Your task to perform on an android device: Clear the shopping cart on walmart.com. Search for usb-a on walmart.com, select the first entry, add it to the cart, then select checkout. Image 0: 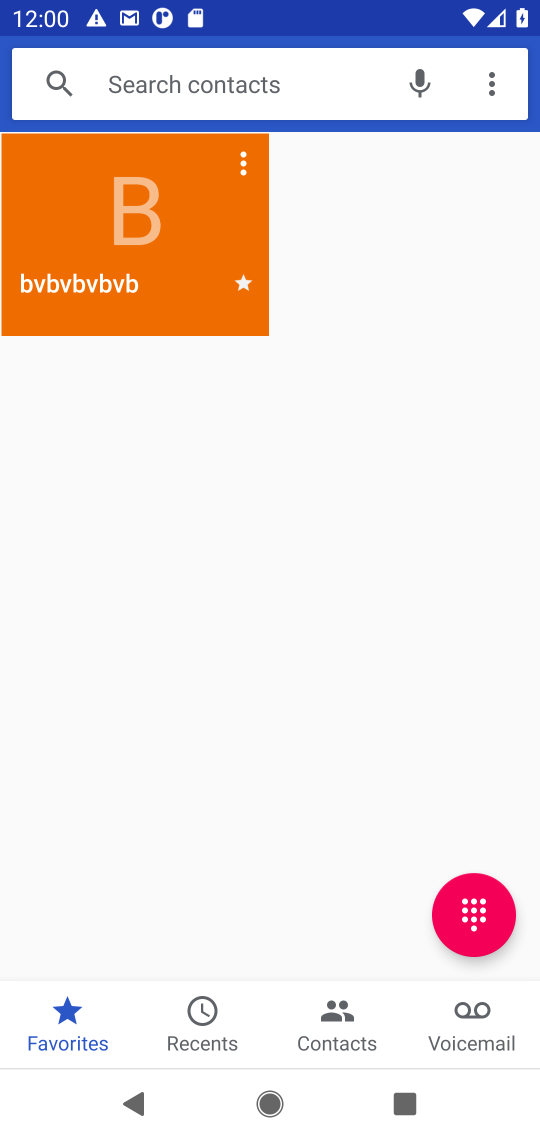
Step 0: press home button
Your task to perform on an android device: Clear the shopping cart on walmart.com. Search for usb-a on walmart.com, select the first entry, add it to the cart, then select checkout. Image 1: 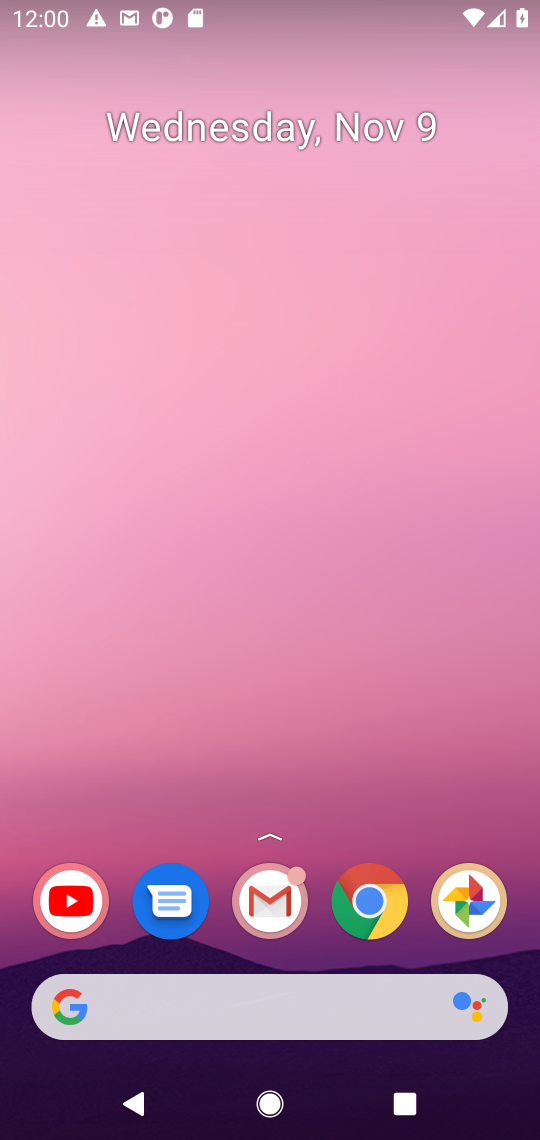
Step 1: click (390, 897)
Your task to perform on an android device: Clear the shopping cart on walmart.com. Search for usb-a on walmart.com, select the first entry, add it to the cart, then select checkout. Image 2: 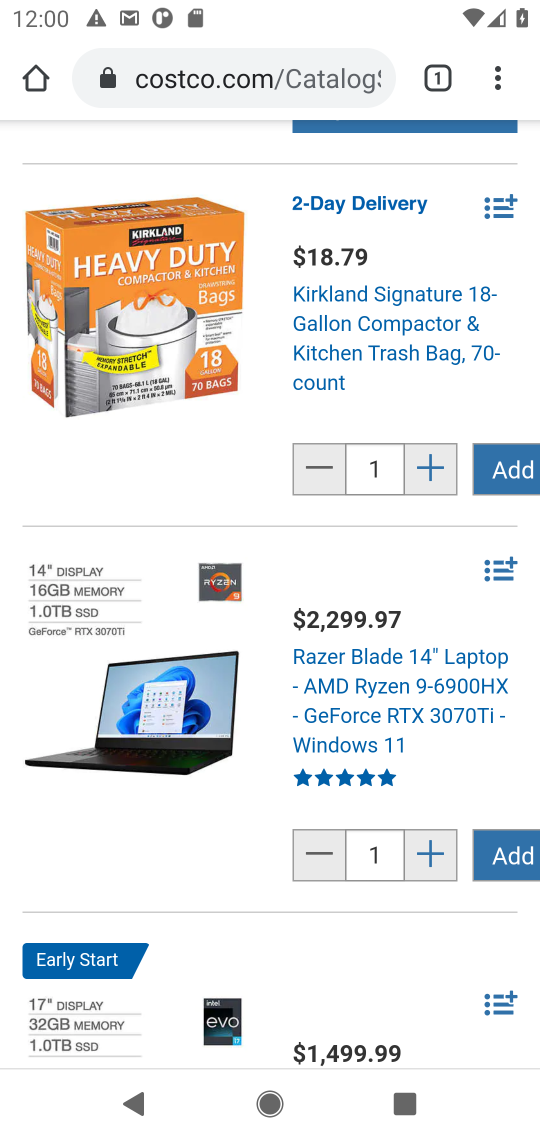
Step 2: click (289, 72)
Your task to perform on an android device: Clear the shopping cart on walmart.com. Search for usb-a on walmart.com, select the first entry, add it to the cart, then select checkout. Image 3: 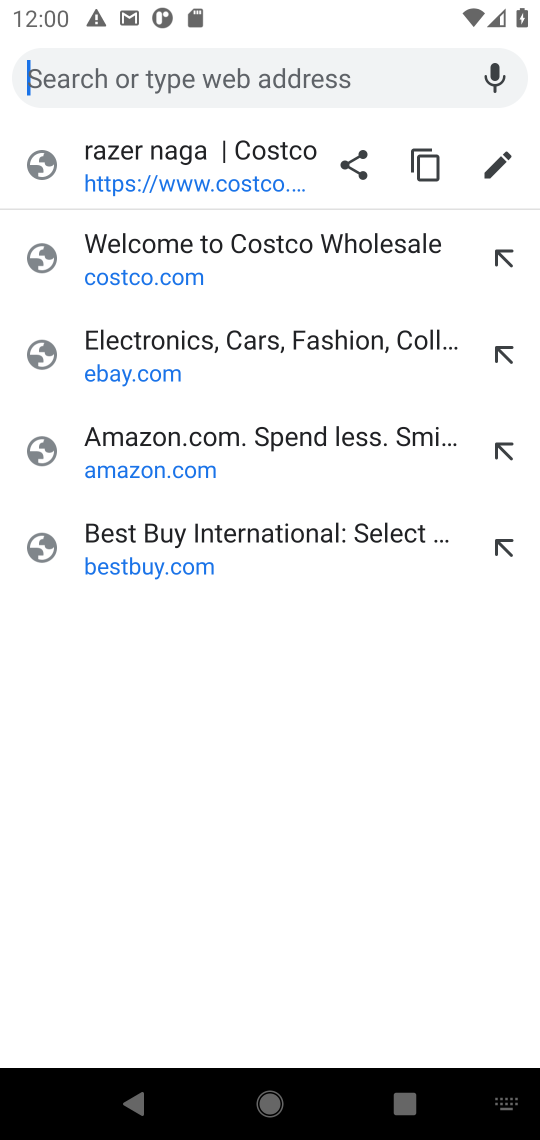
Step 3: type "walmart.com"
Your task to perform on an android device: Clear the shopping cart on walmart.com. Search for usb-a on walmart.com, select the first entry, add it to the cart, then select checkout. Image 4: 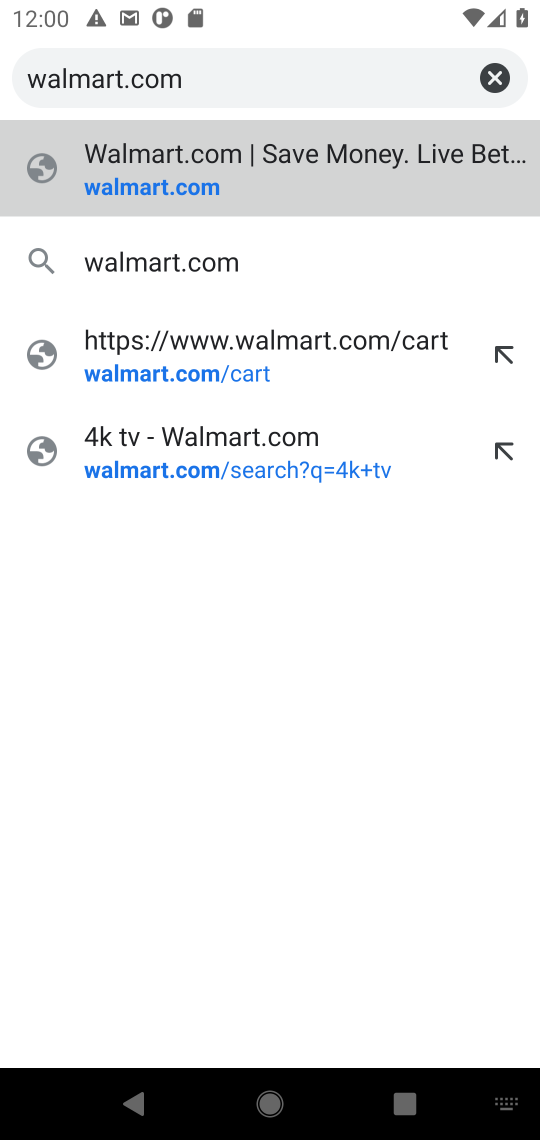
Step 4: press enter
Your task to perform on an android device: Clear the shopping cart on walmart.com. Search for usb-a on walmart.com, select the first entry, add it to the cart, then select checkout. Image 5: 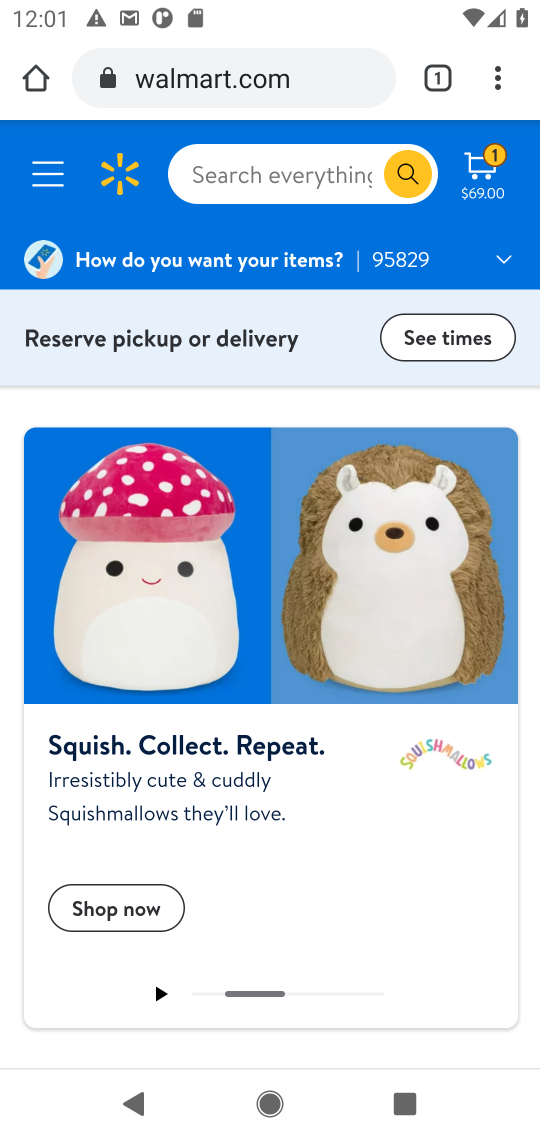
Step 5: click (479, 173)
Your task to perform on an android device: Clear the shopping cart on walmart.com. Search for usb-a on walmart.com, select the first entry, add it to the cart, then select checkout. Image 6: 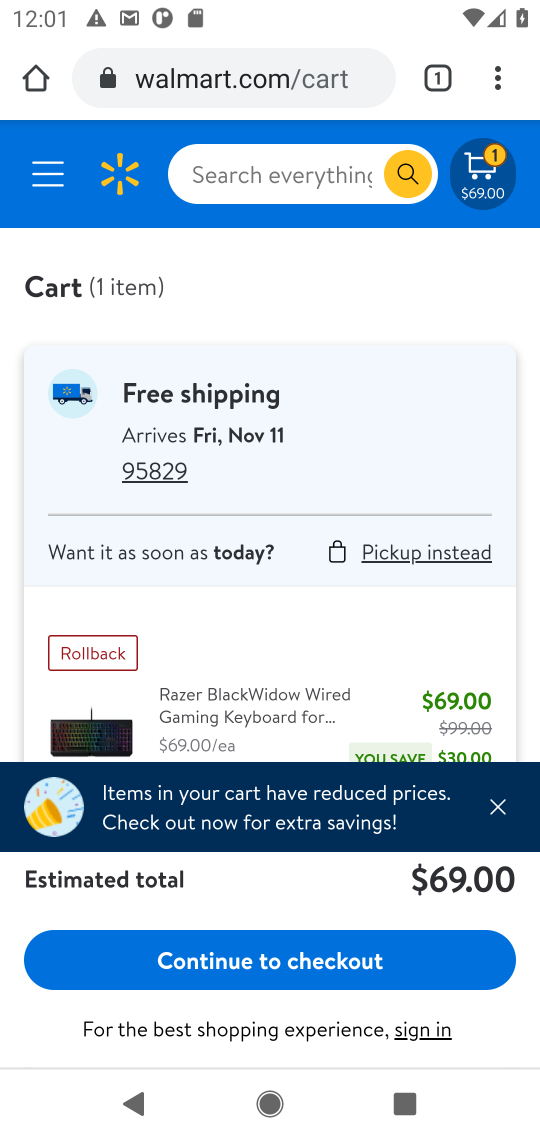
Step 6: drag from (408, 576) to (460, 266)
Your task to perform on an android device: Clear the shopping cart on walmart.com. Search for usb-a on walmart.com, select the first entry, add it to the cart, then select checkout. Image 7: 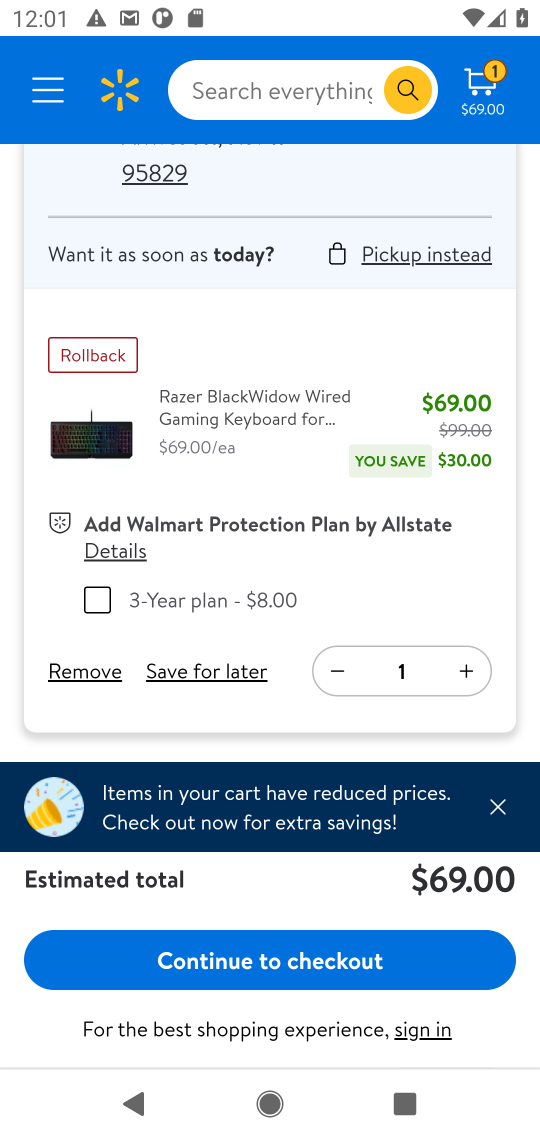
Step 7: click (497, 719)
Your task to perform on an android device: Clear the shopping cart on walmart.com. Search for usb-a on walmart.com, select the first entry, add it to the cart, then select checkout. Image 8: 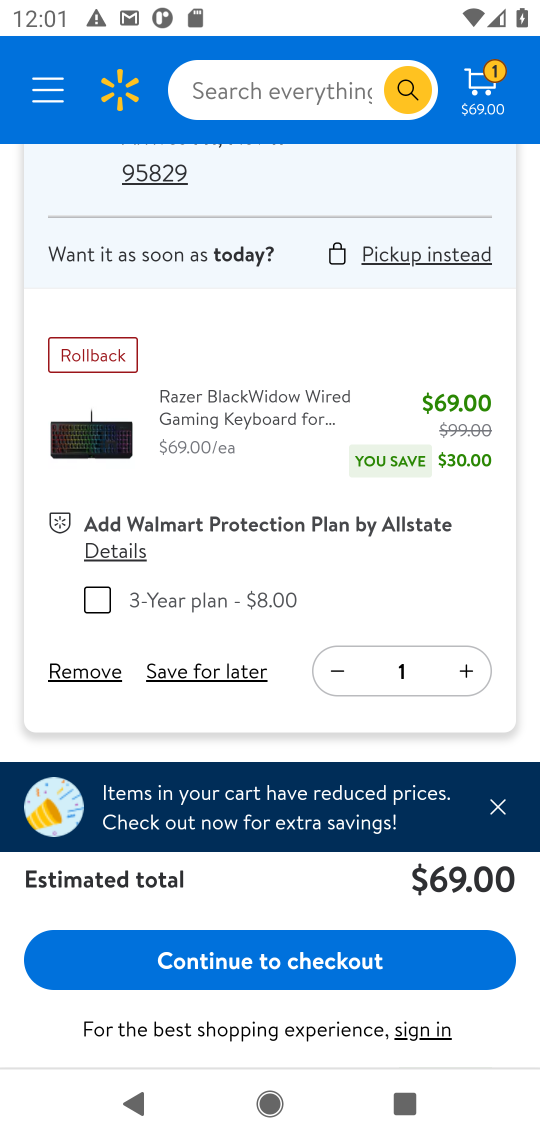
Step 8: click (80, 667)
Your task to perform on an android device: Clear the shopping cart on walmart.com. Search for usb-a on walmart.com, select the first entry, add it to the cart, then select checkout. Image 9: 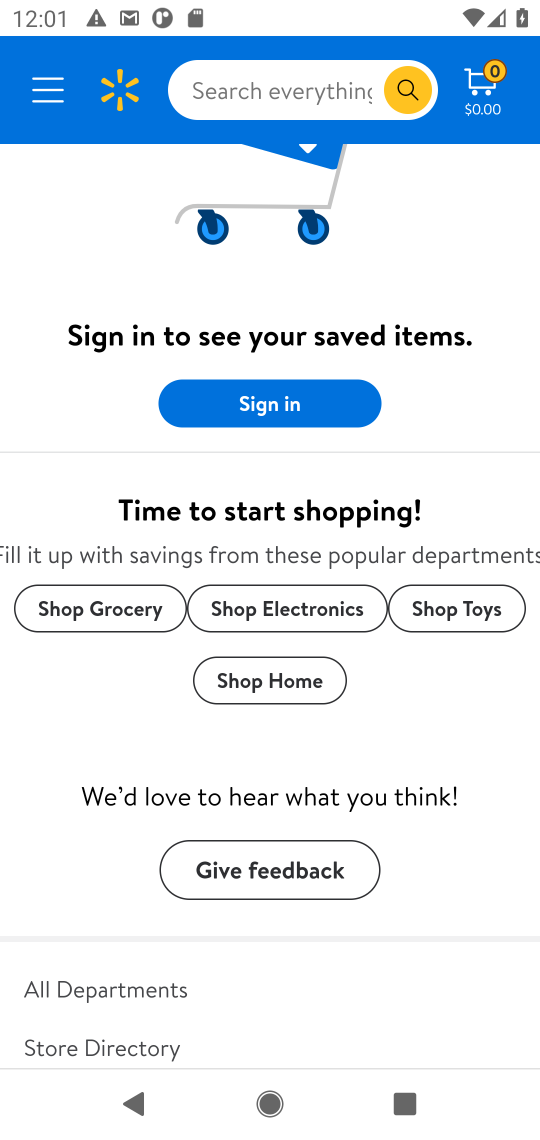
Step 9: click (302, 82)
Your task to perform on an android device: Clear the shopping cart on walmart.com. Search for usb-a on walmart.com, select the first entry, add it to the cart, then select checkout. Image 10: 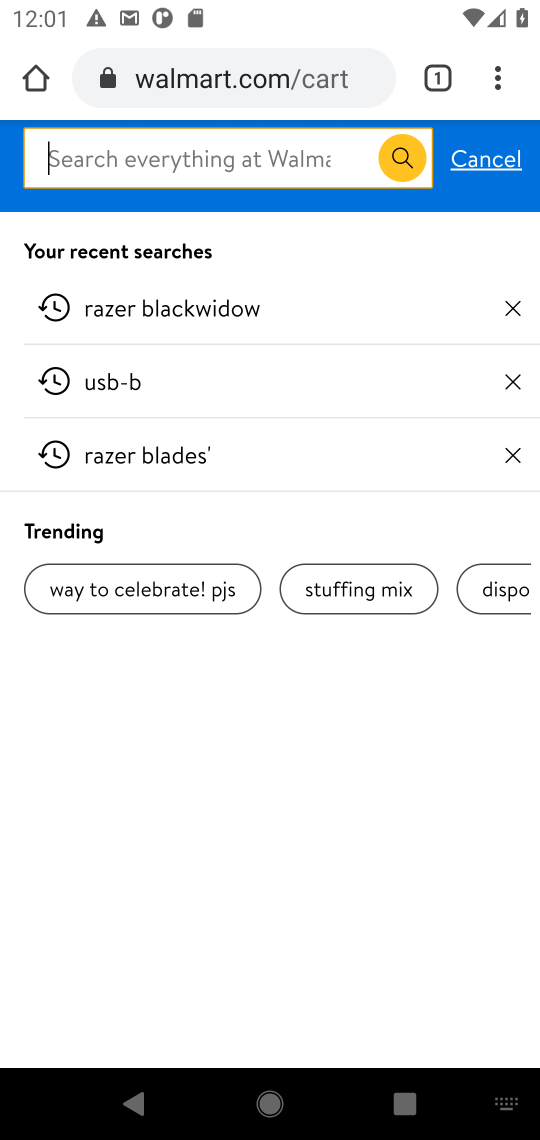
Step 10: type "usb-a"
Your task to perform on an android device: Clear the shopping cart on walmart.com. Search for usb-a on walmart.com, select the first entry, add it to the cart, then select checkout. Image 11: 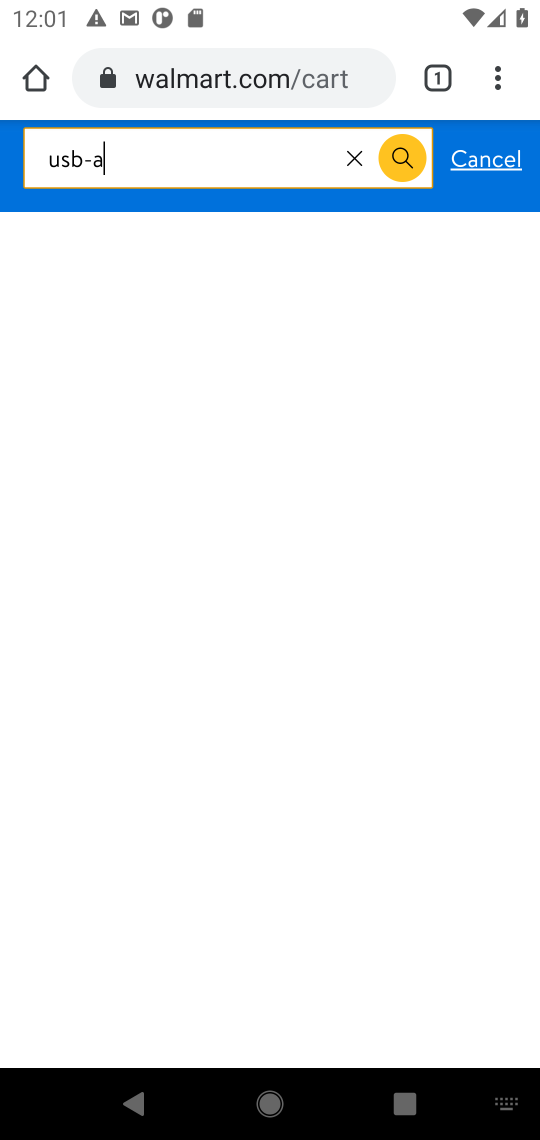
Step 11: press enter
Your task to perform on an android device: Clear the shopping cart on walmart.com. Search for usb-a on walmart.com, select the first entry, add it to the cart, then select checkout. Image 12: 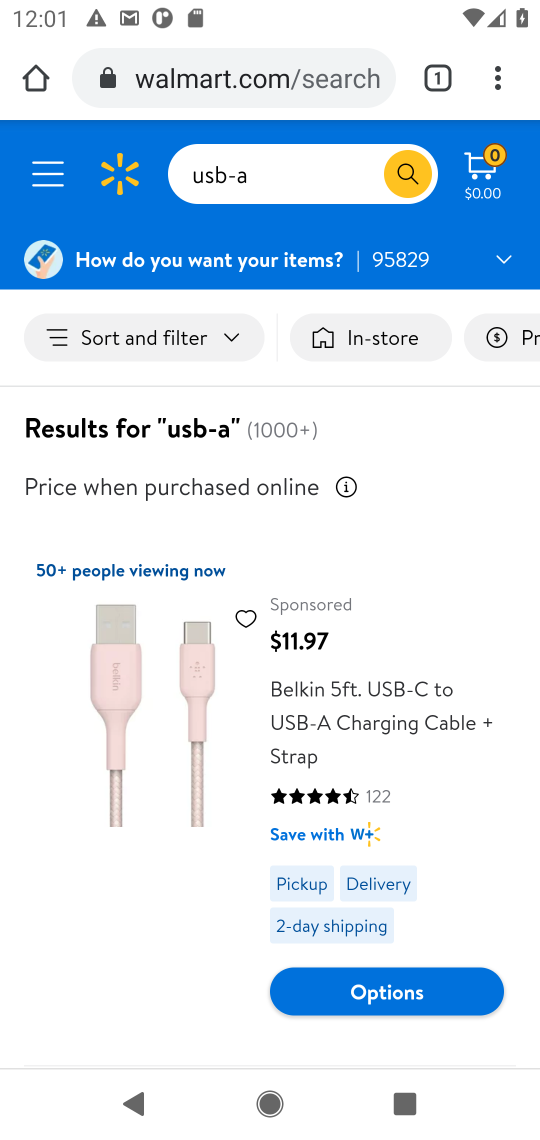
Step 12: drag from (448, 785) to (522, 335)
Your task to perform on an android device: Clear the shopping cart on walmart.com. Search for usb-a on walmart.com, select the first entry, add it to the cart, then select checkout. Image 13: 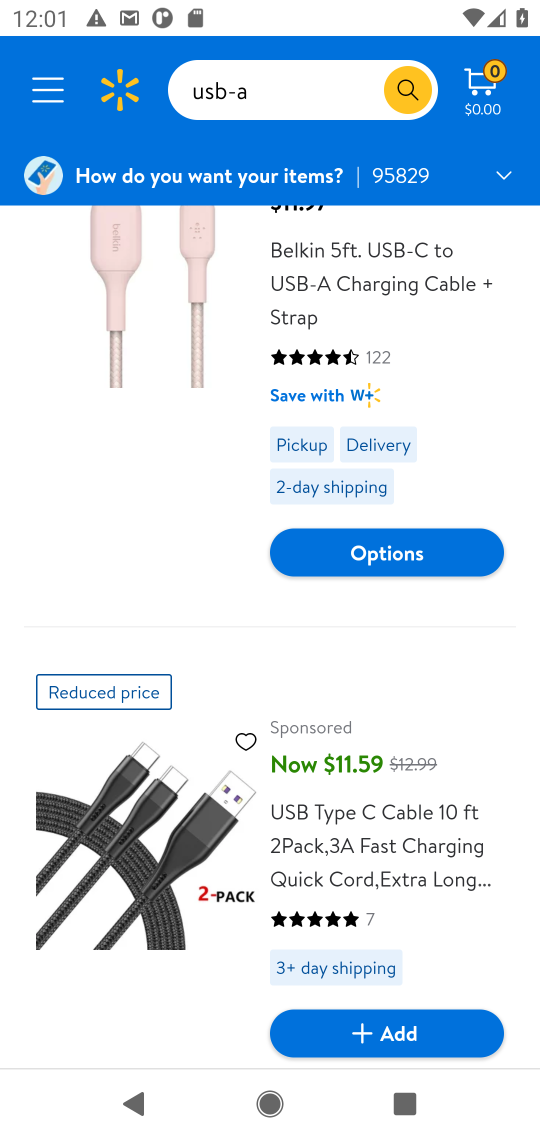
Step 13: drag from (489, 827) to (533, 796)
Your task to perform on an android device: Clear the shopping cart on walmart.com. Search for usb-a on walmart.com, select the first entry, add it to the cart, then select checkout. Image 14: 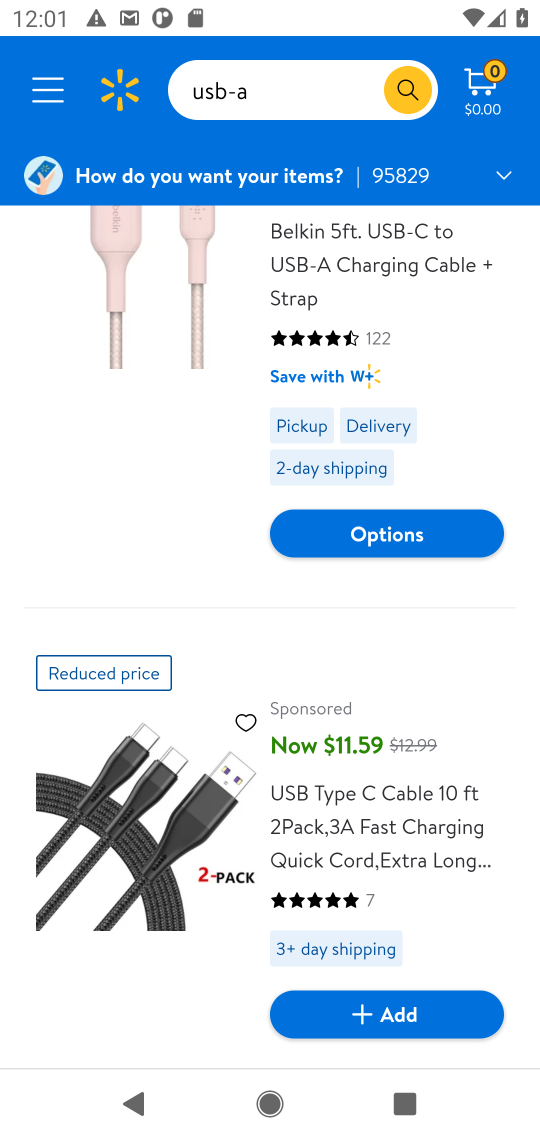
Step 14: drag from (433, 848) to (349, 1074)
Your task to perform on an android device: Clear the shopping cart on walmart.com. Search for usb-a on walmart.com, select the first entry, add it to the cart, then select checkout. Image 15: 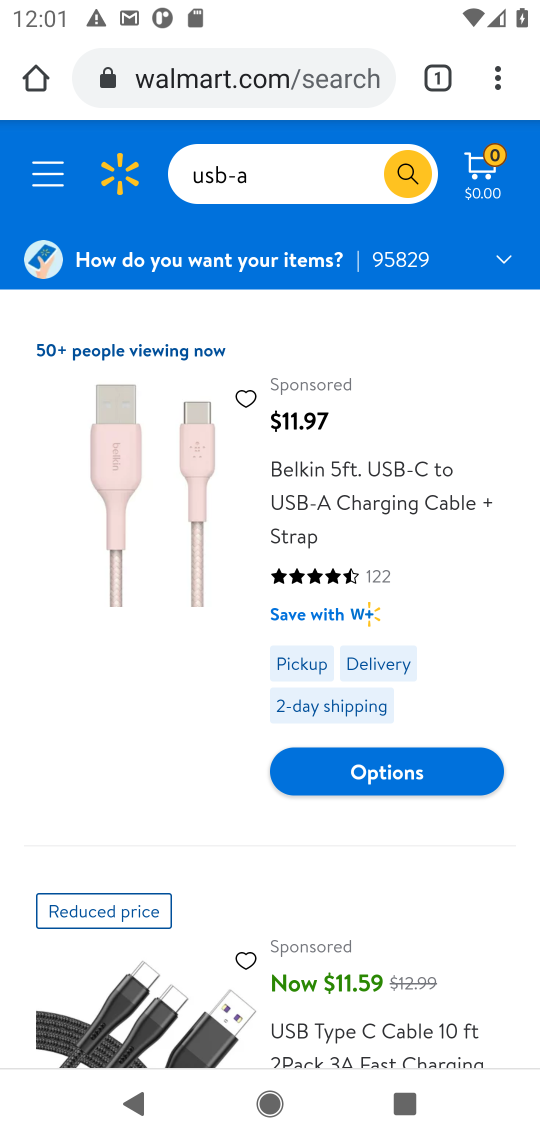
Step 15: click (169, 533)
Your task to perform on an android device: Clear the shopping cart on walmart.com. Search for usb-a on walmart.com, select the first entry, add it to the cart, then select checkout. Image 16: 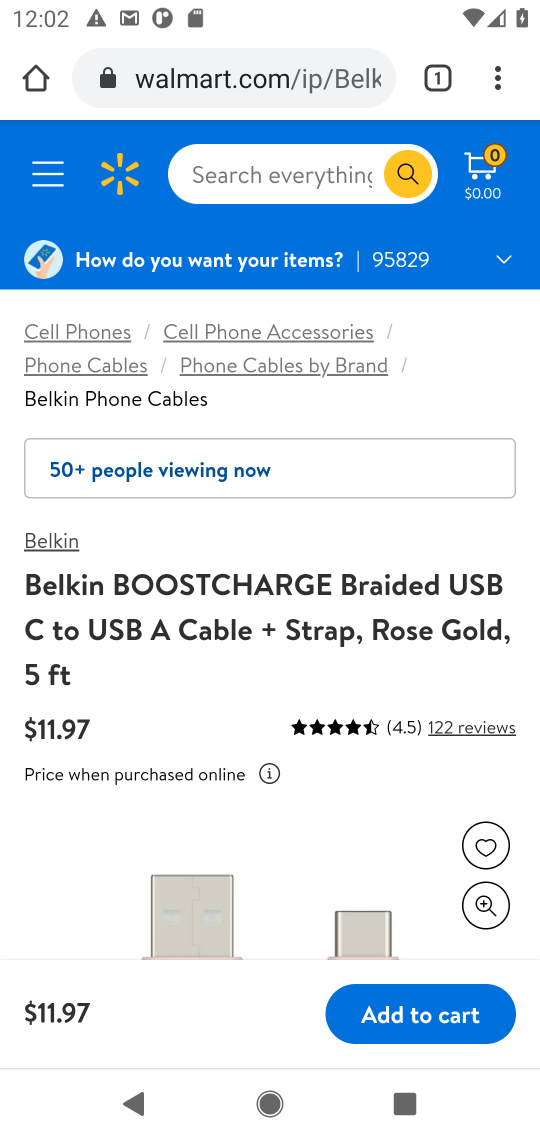
Step 16: press back button
Your task to perform on an android device: Clear the shopping cart on walmart.com. Search for usb-a on walmart.com, select the first entry, add it to the cart, then select checkout. Image 17: 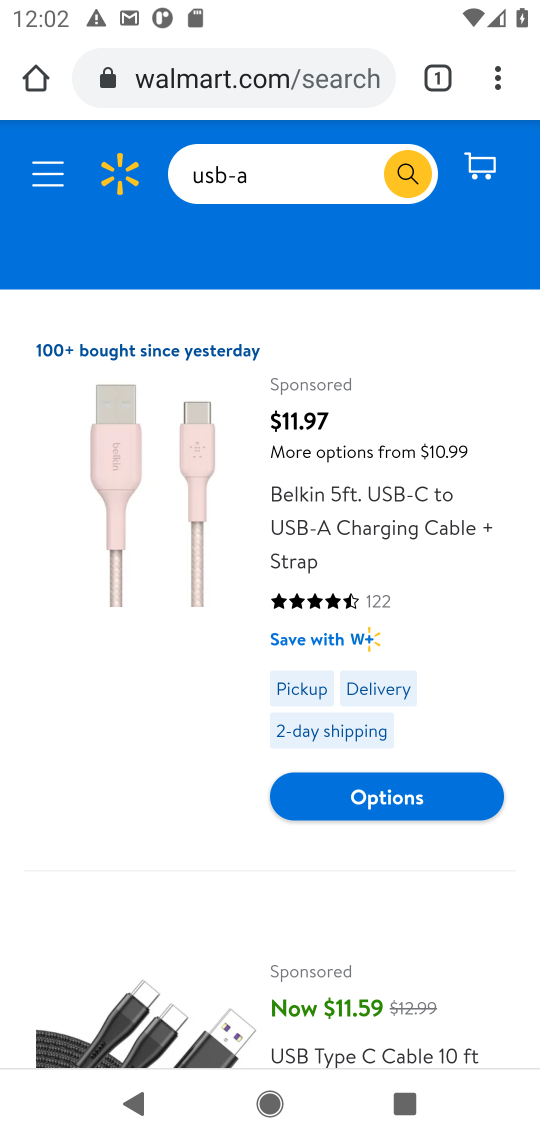
Step 17: drag from (436, 426) to (465, 842)
Your task to perform on an android device: Clear the shopping cart on walmart.com. Search for usb-a on walmart.com, select the first entry, add it to the cart, then select checkout. Image 18: 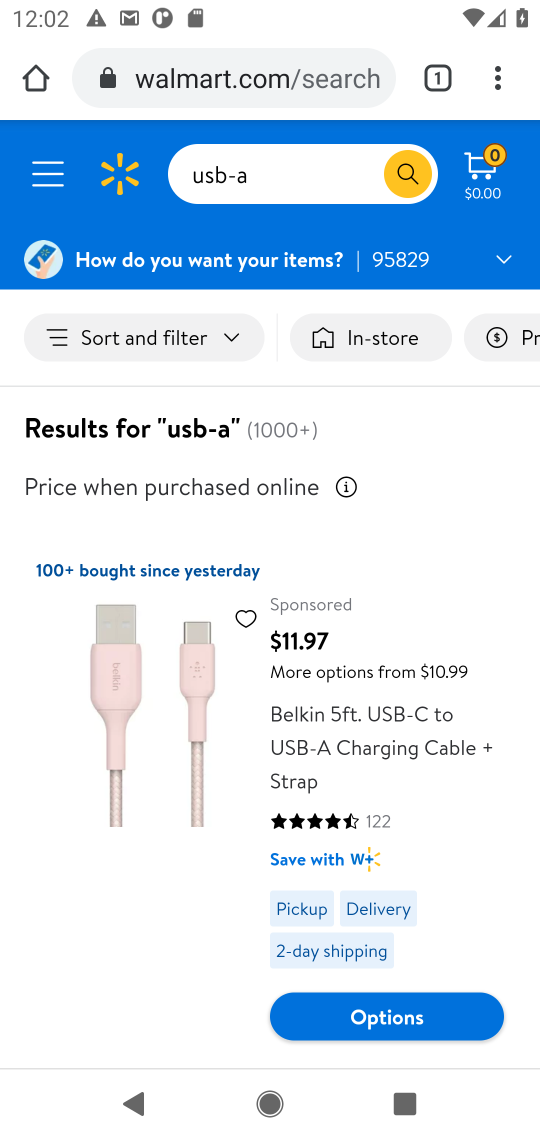
Step 18: drag from (428, 713) to (537, 278)
Your task to perform on an android device: Clear the shopping cart on walmart.com. Search for usb-a on walmart.com, select the first entry, add it to the cart, then select checkout. Image 19: 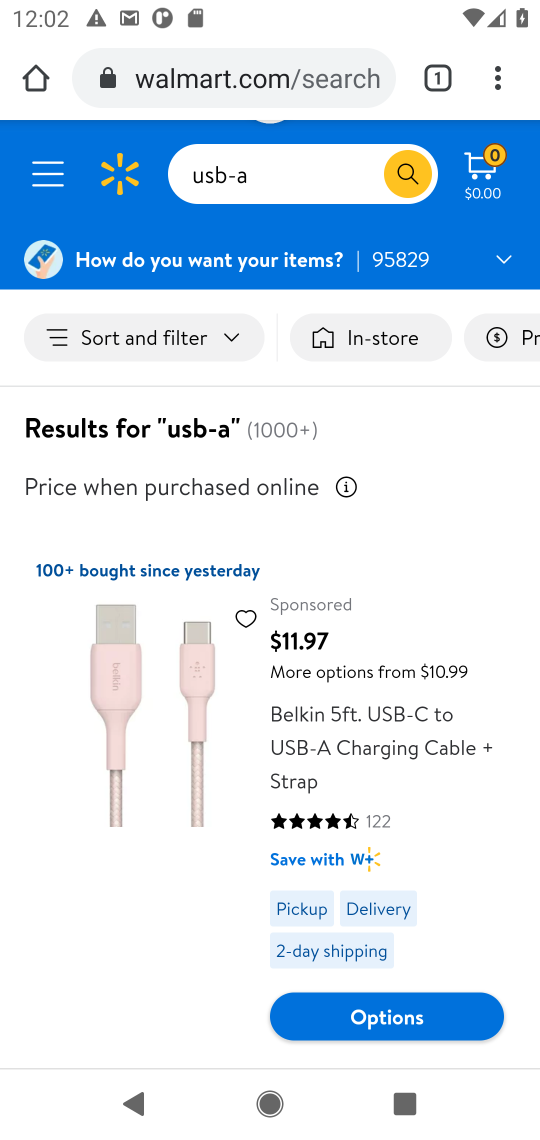
Step 19: press back button
Your task to perform on an android device: Clear the shopping cart on walmart.com. Search for usb-a on walmart.com, select the first entry, add it to the cart, then select checkout. Image 20: 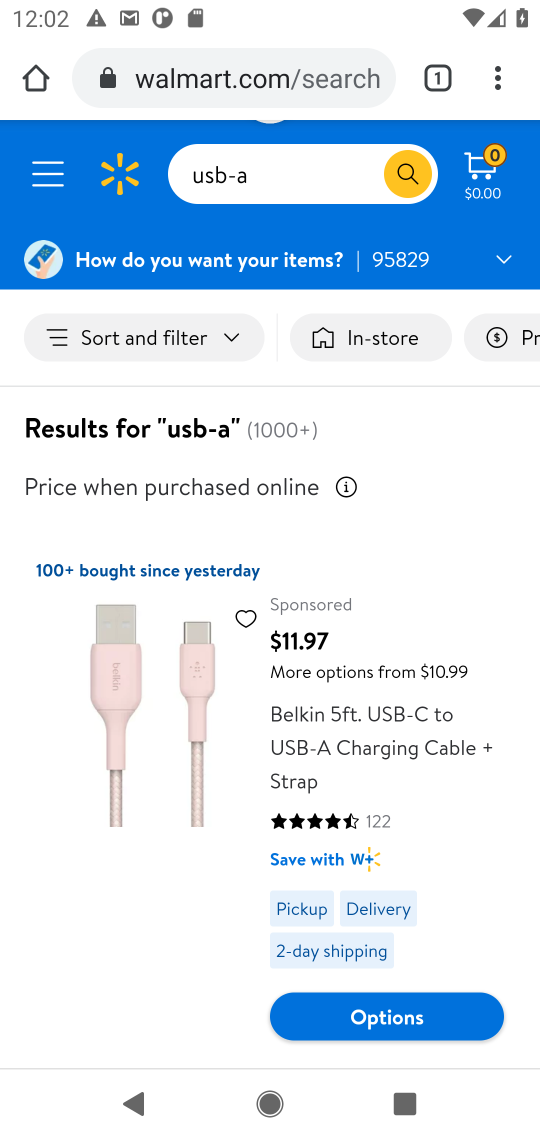
Step 20: click (490, 585)
Your task to perform on an android device: Clear the shopping cart on walmart.com. Search for usb-a on walmart.com, select the first entry, add it to the cart, then select checkout. Image 21: 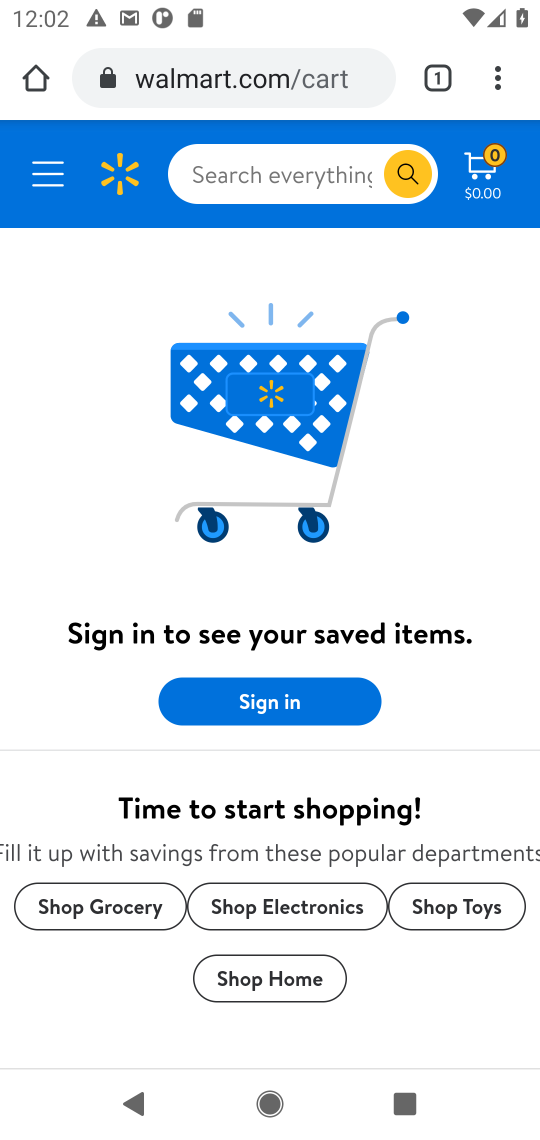
Step 21: click (342, 180)
Your task to perform on an android device: Clear the shopping cart on walmart.com. Search for usb-a on walmart.com, select the first entry, add it to the cart, then select checkout. Image 22: 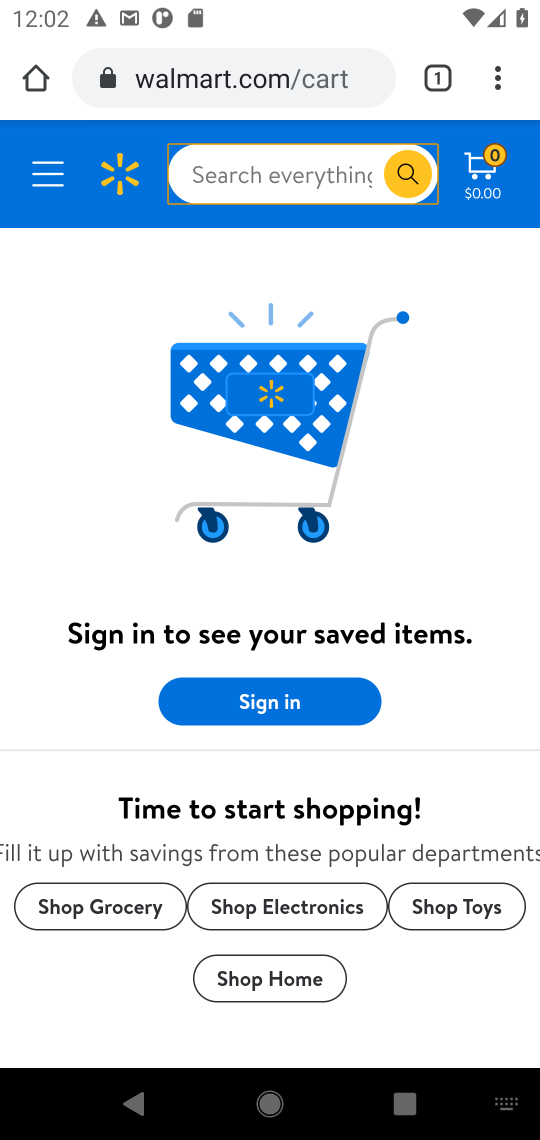
Step 22: type "usb-a"
Your task to perform on an android device: Clear the shopping cart on walmart.com. Search for usb-a on walmart.com, select the first entry, add it to the cart, then select checkout. Image 23: 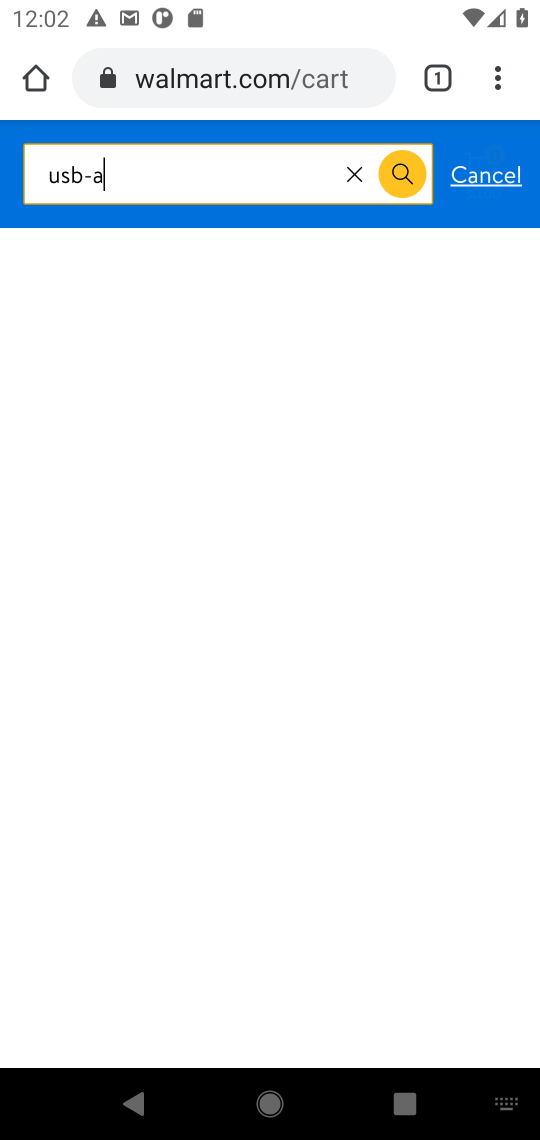
Step 23: press enter
Your task to perform on an android device: Clear the shopping cart on walmart.com. Search for usb-a on walmart.com, select the first entry, add it to the cart, then select checkout. Image 24: 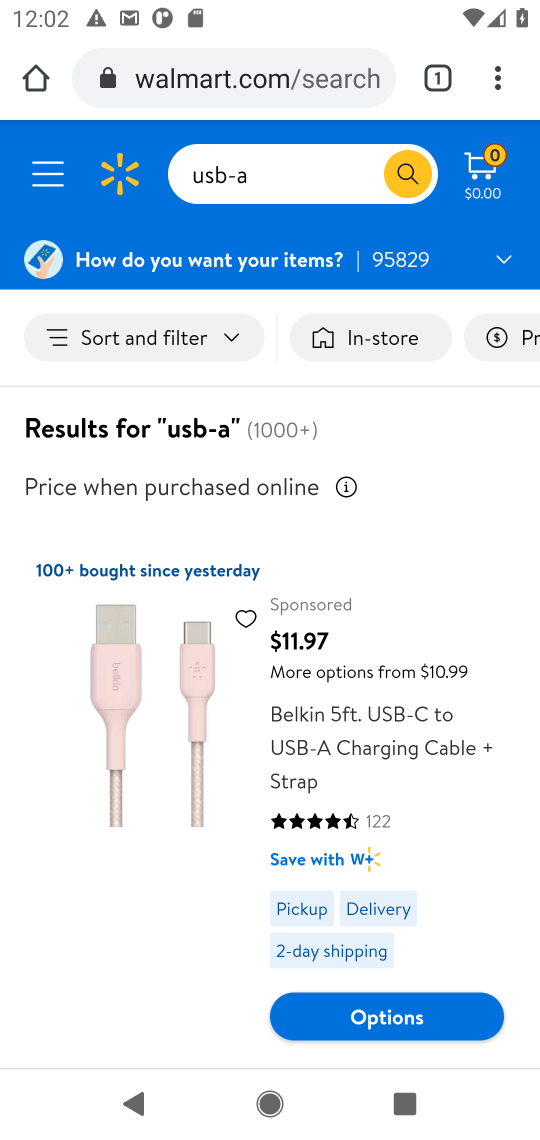
Step 24: drag from (125, 838) to (235, 436)
Your task to perform on an android device: Clear the shopping cart on walmart.com. Search for usb-a on walmart.com, select the first entry, add it to the cart, then select checkout. Image 25: 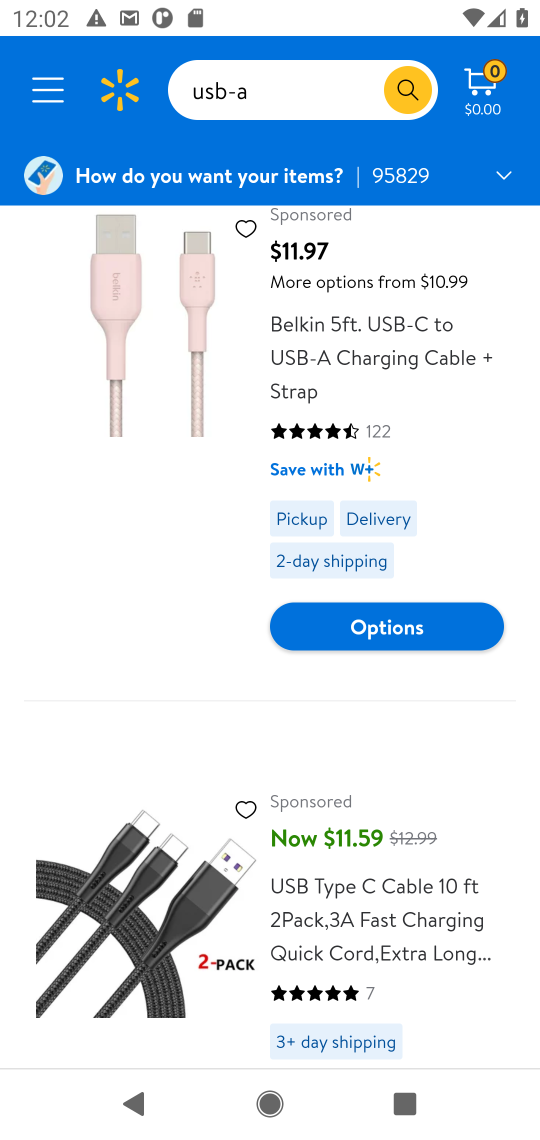
Step 25: drag from (299, 886) to (374, 533)
Your task to perform on an android device: Clear the shopping cart on walmart.com. Search for usb-a on walmart.com, select the first entry, add it to the cart, then select checkout. Image 26: 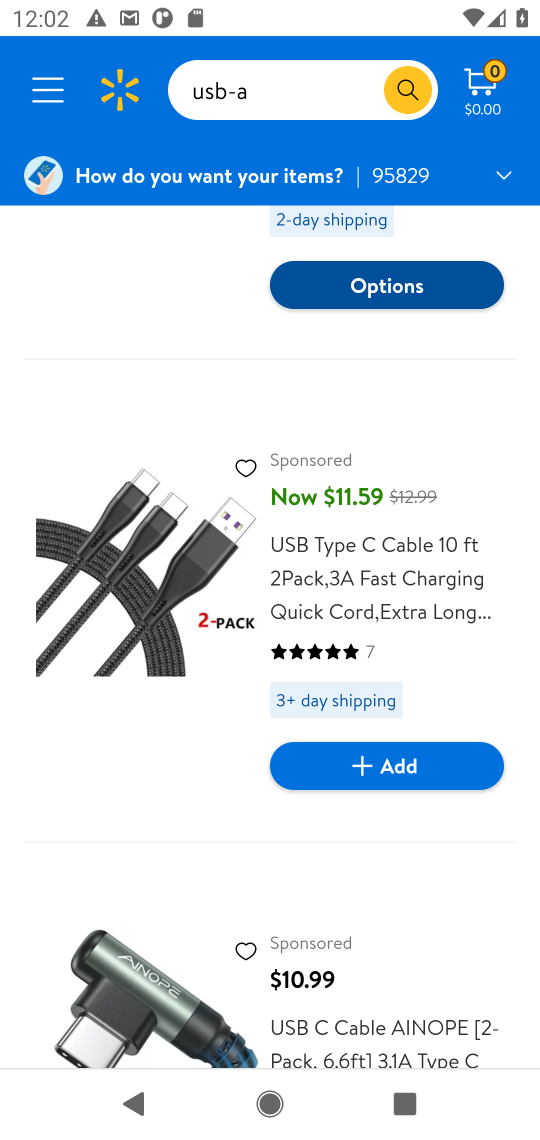
Step 26: drag from (397, 791) to (442, 372)
Your task to perform on an android device: Clear the shopping cart on walmart.com. Search for usb-a on walmart.com, select the first entry, add it to the cart, then select checkout. Image 27: 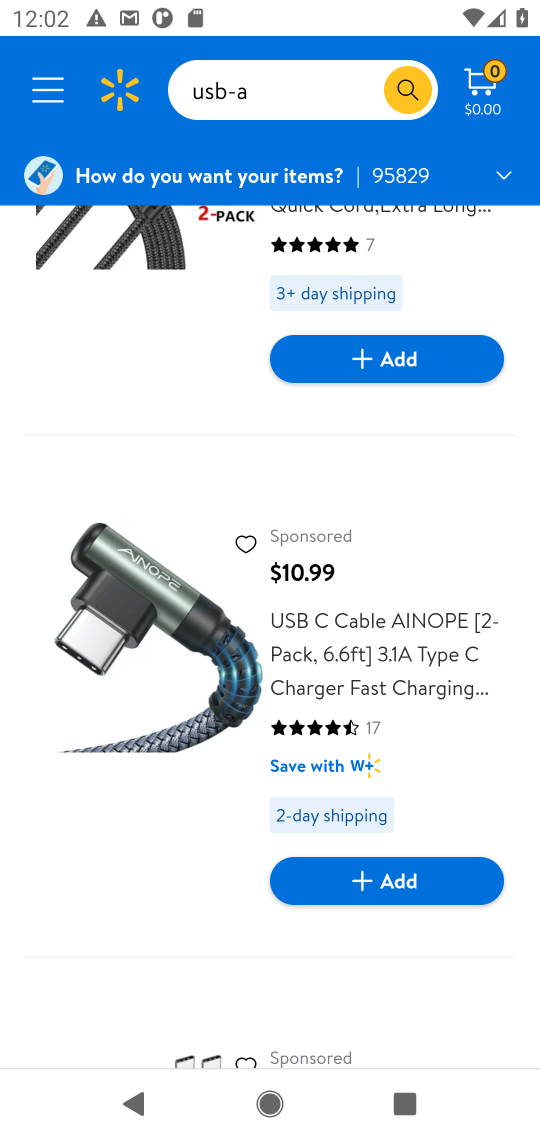
Step 27: drag from (388, 951) to (433, 384)
Your task to perform on an android device: Clear the shopping cart on walmart.com. Search for usb-a on walmart.com, select the first entry, add it to the cart, then select checkout. Image 28: 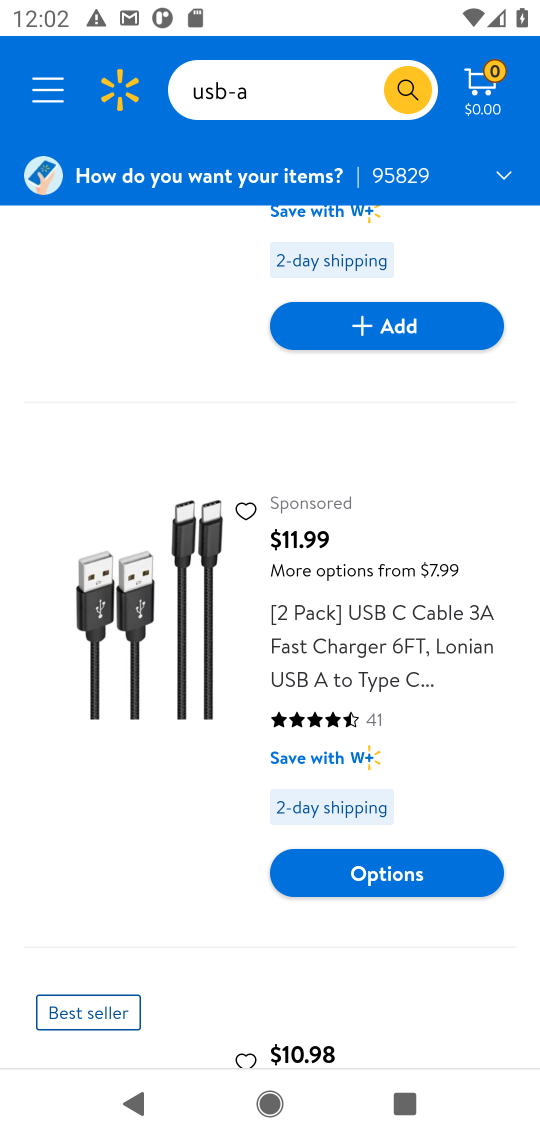
Step 28: drag from (411, 957) to (415, 292)
Your task to perform on an android device: Clear the shopping cart on walmart.com. Search for usb-a on walmart.com, select the first entry, add it to the cart, then select checkout. Image 29: 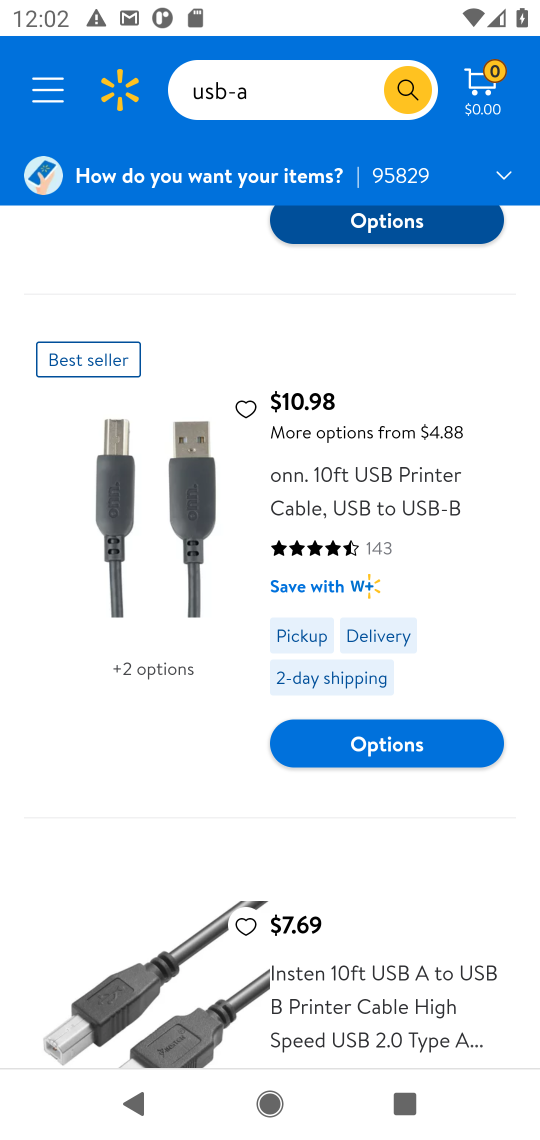
Step 29: drag from (416, 909) to (470, 412)
Your task to perform on an android device: Clear the shopping cart on walmart.com. Search for usb-a on walmart.com, select the first entry, add it to the cart, then select checkout. Image 30: 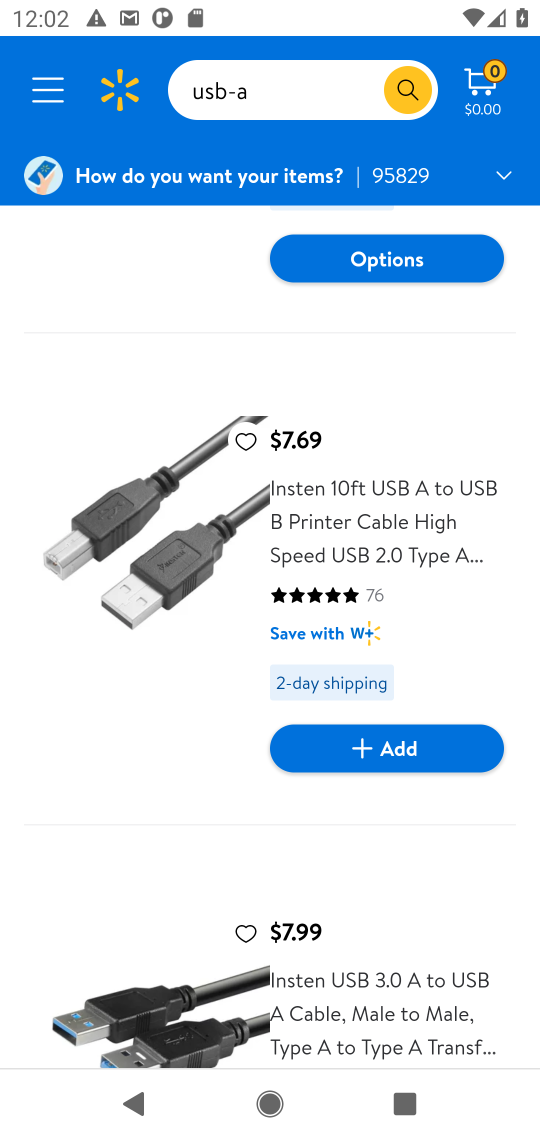
Step 30: click (150, 472)
Your task to perform on an android device: Clear the shopping cart on walmart.com. Search for usb-a on walmart.com, select the first entry, add it to the cart, then select checkout. Image 31: 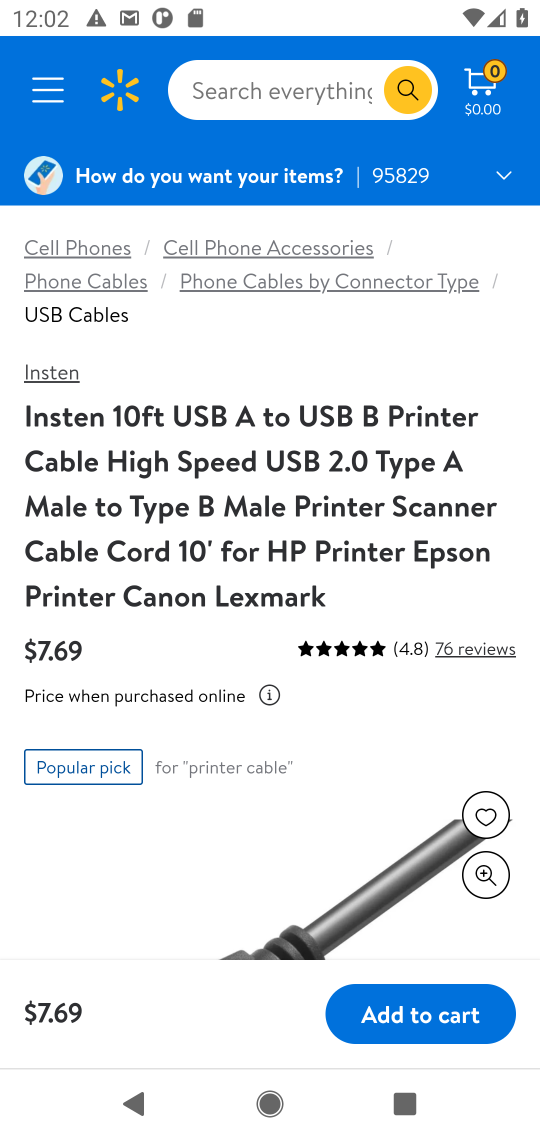
Step 31: click (431, 1005)
Your task to perform on an android device: Clear the shopping cart on walmart.com. Search for usb-a on walmart.com, select the first entry, add it to the cart, then select checkout. Image 32: 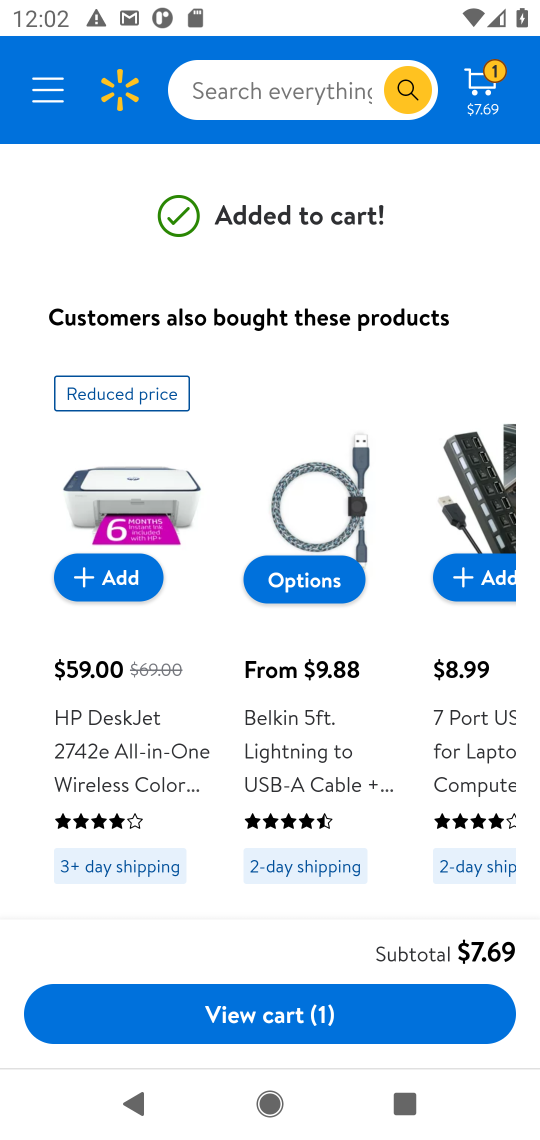
Step 32: click (491, 86)
Your task to perform on an android device: Clear the shopping cart on walmart.com. Search for usb-a on walmart.com, select the first entry, add it to the cart, then select checkout. Image 33: 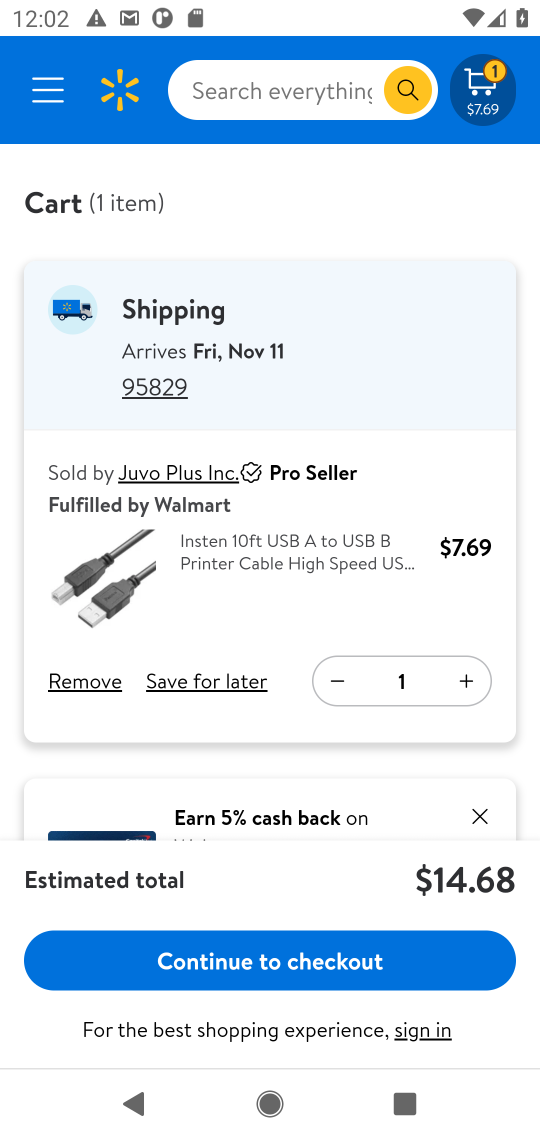
Step 33: click (288, 952)
Your task to perform on an android device: Clear the shopping cart on walmart.com. Search for usb-a on walmart.com, select the first entry, add it to the cart, then select checkout. Image 34: 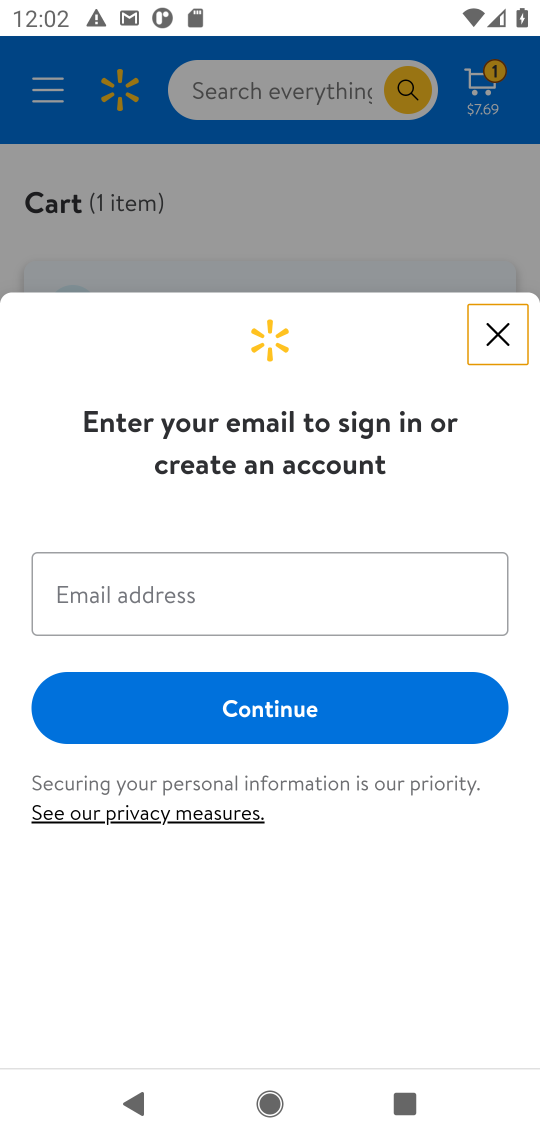
Step 34: task complete